Your task to perform on an android device: toggle translation in the chrome app Image 0: 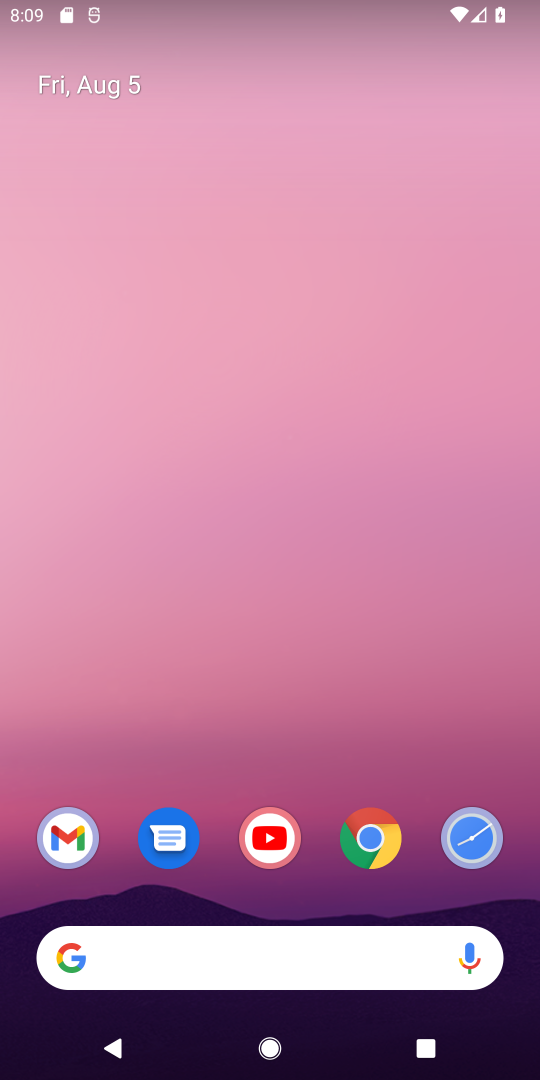
Step 0: click (372, 838)
Your task to perform on an android device: toggle translation in the chrome app Image 1: 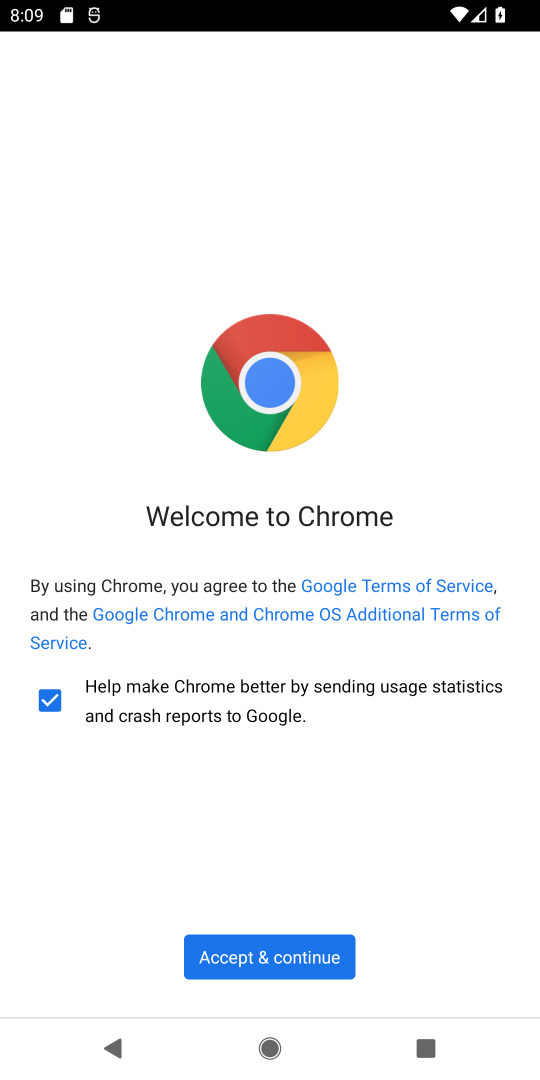
Step 1: click (236, 959)
Your task to perform on an android device: toggle translation in the chrome app Image 2: 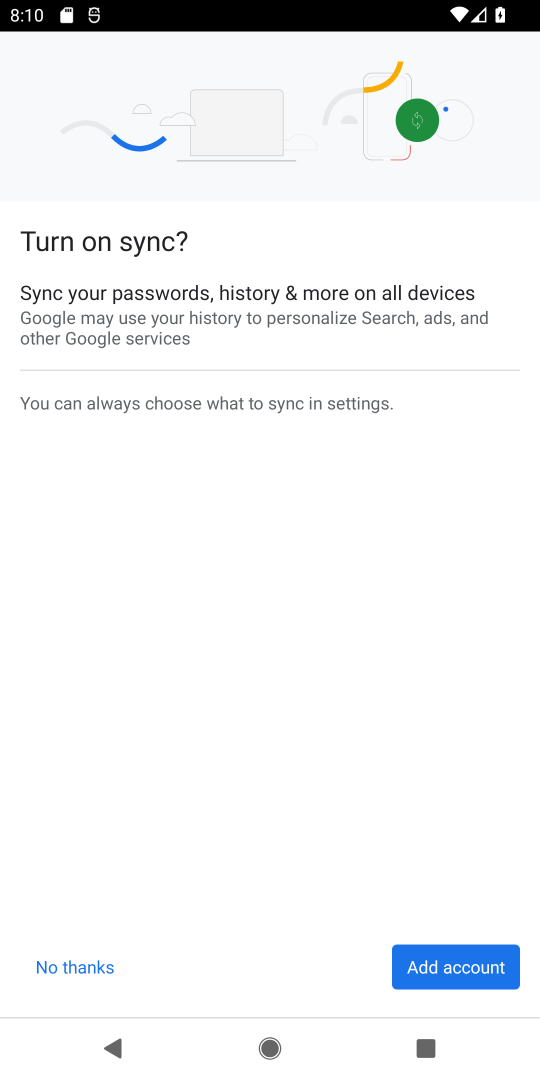
Step 2: click (65, 966)
Your task to perform on an android device: toggle translation in the chrome app Image 3: 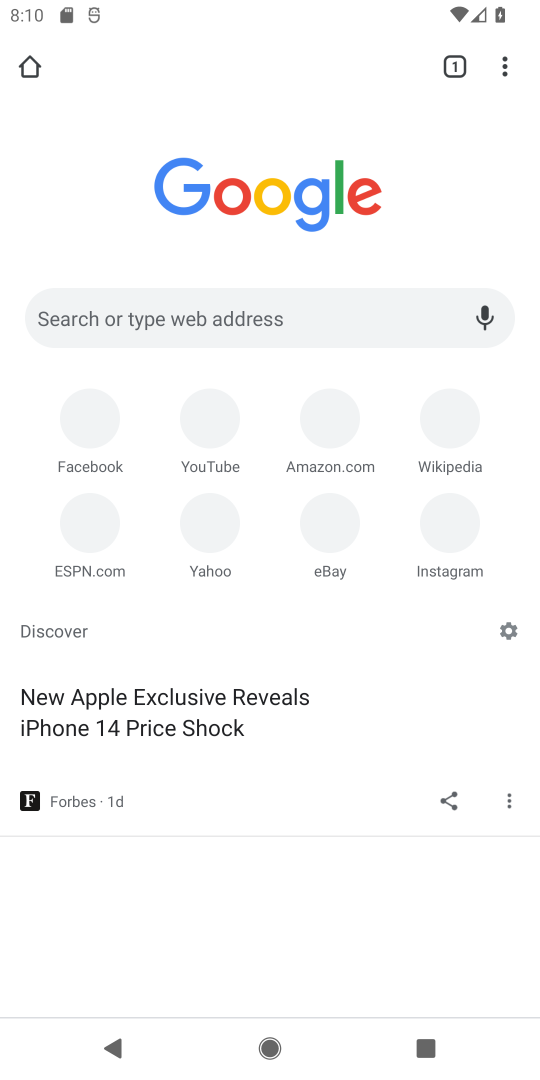
Step 3: click (509, 74)
Your task to perform on an android device: toggle translation in the chrome app Image 4: 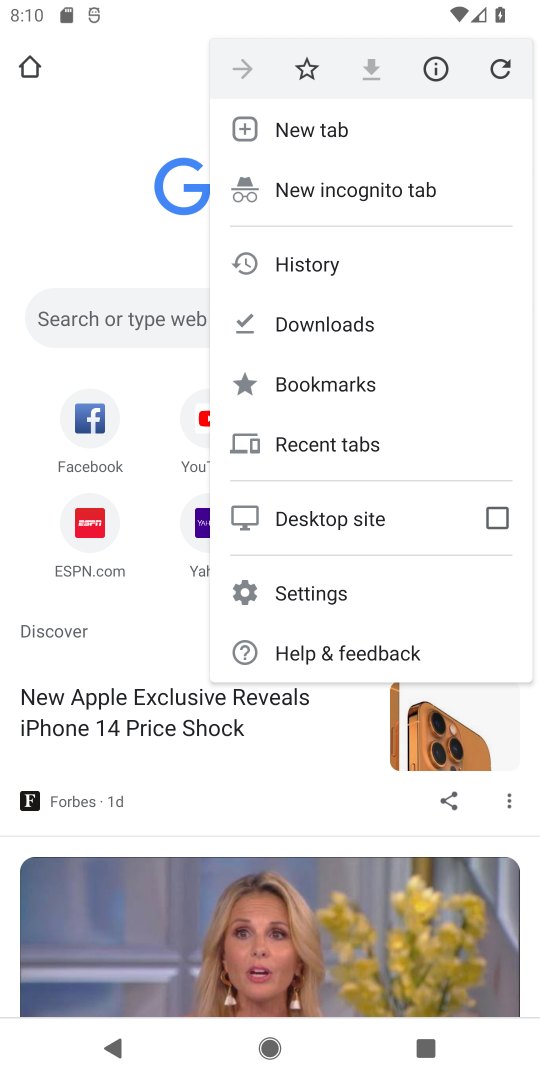
Step 4: click (302, 579)
Your task to perform on an android device: toggle translation in the chrome app Image 5: 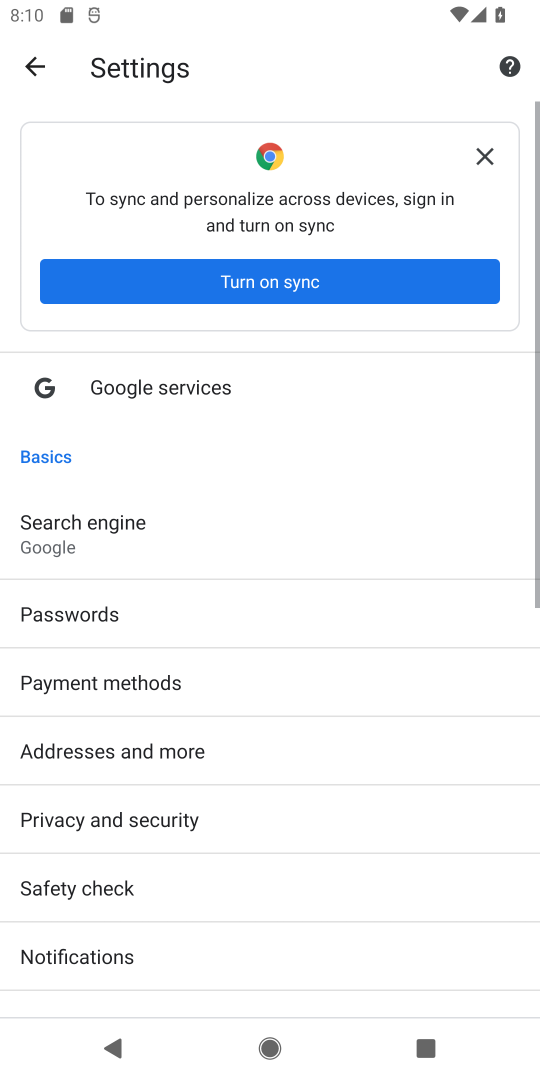
Step 5: drag from (292, 721) to (269, 256)
Your task to perform on an android device: toggle translation in the chrome app Image 6: 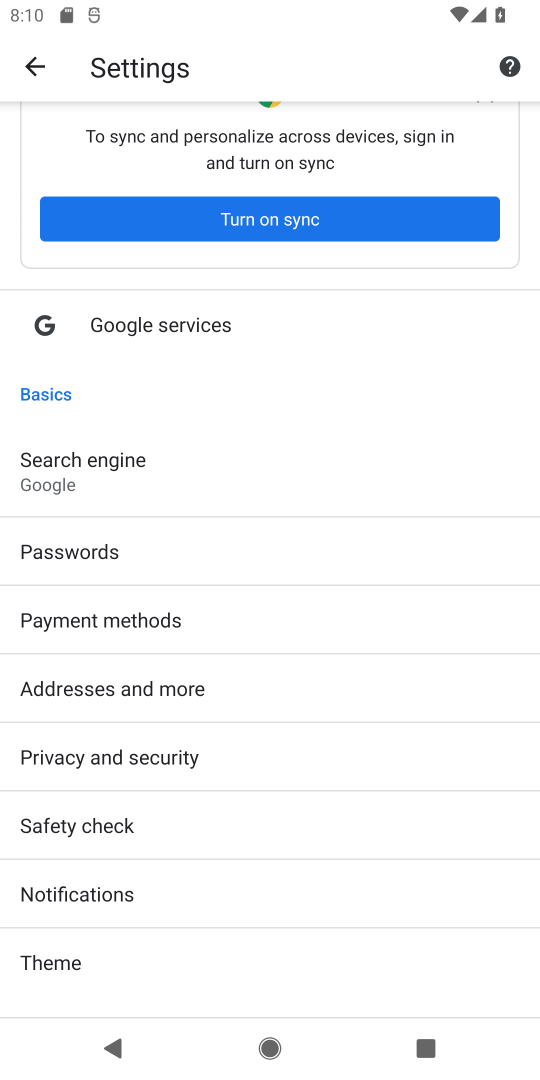
Step 6: drag from (379, 867) to (313, 154)
Your task to perform on an android device: toggle translation in the chrome app Image 7: 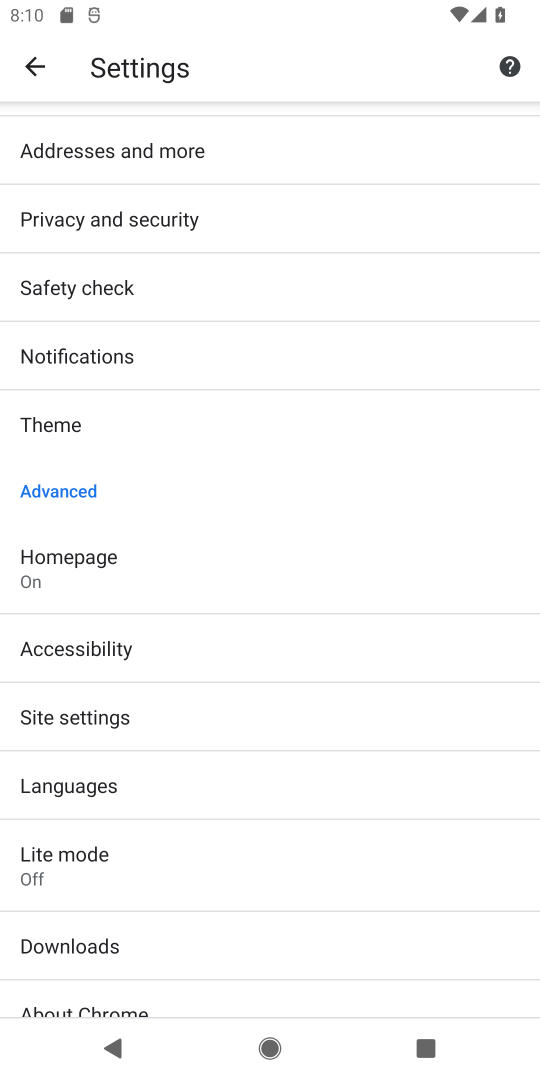
Step 7: click (63, 777)
Your task to perform on an android device: toggle translation in the chrome app Image 8: 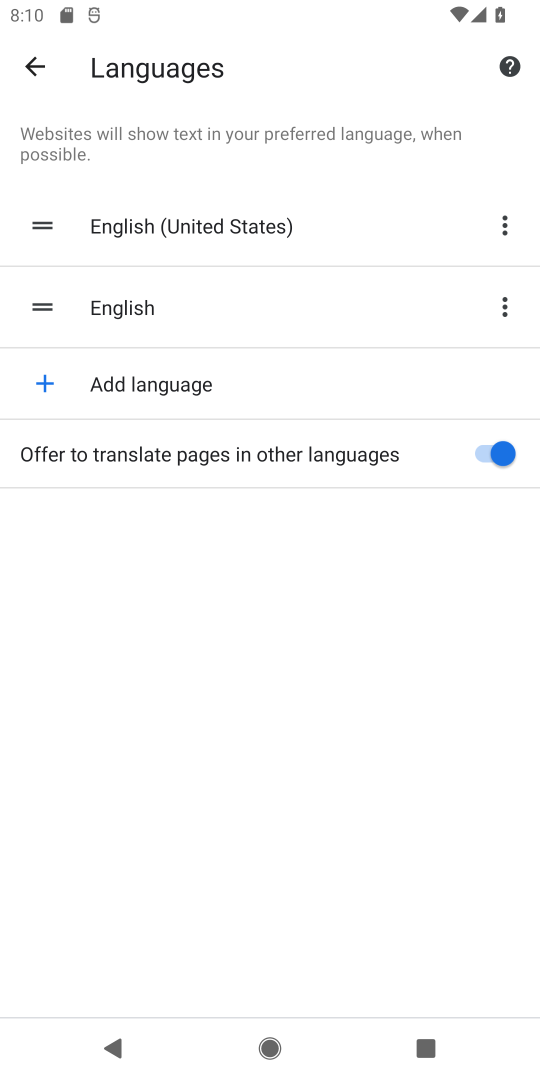
Step 8: click (500, 459)
Your task to perform on an android device: toggle translation in the chrome app Image 9: 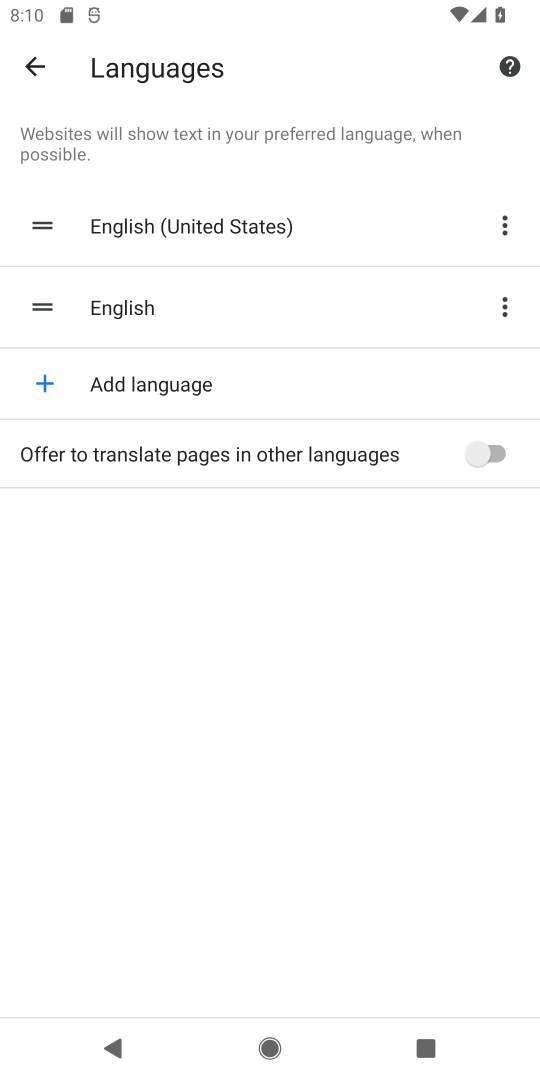
Step 9: task complete